Your task to perform on an android device: Open the stopwatch Image 0: 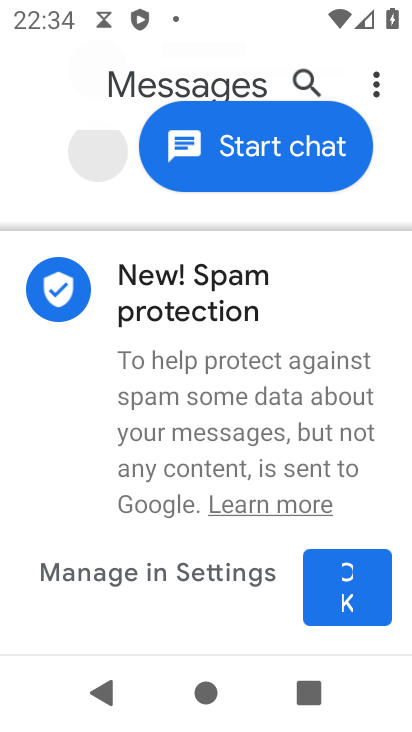
Step 0: press home button
Your task to perform on an android device: Open the stopwatch Image 1: 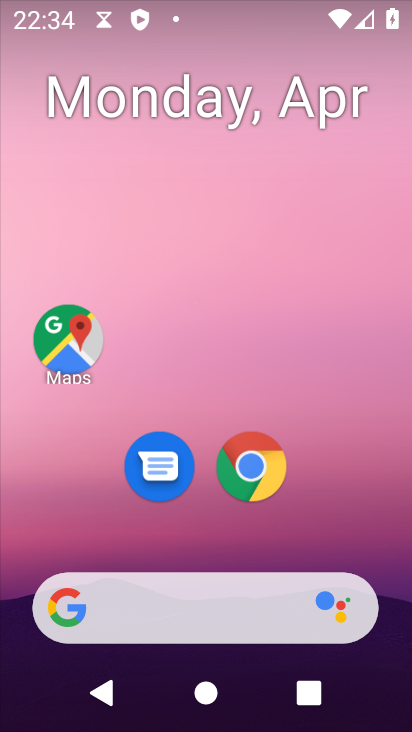
Step 1: drag from (228, 537) to (274, 48)
Your task to perform on an android device: Open the stopwatch Image 2: 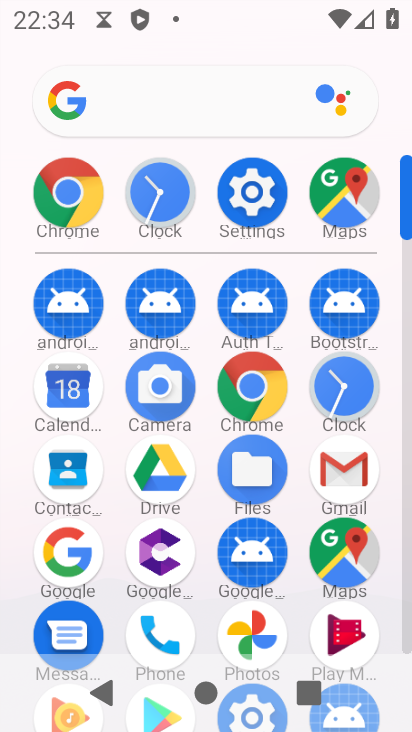
Step 2: click (353, 394)
Your task to perform on an android device: Open the stopwatch Image 3: 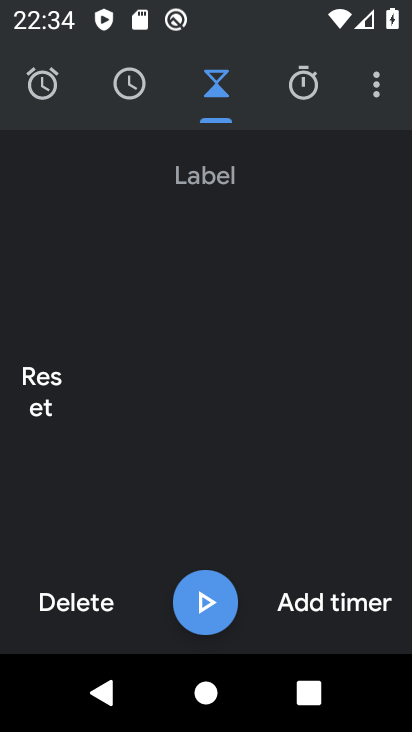
Step 3: click (310, 83)
Your task to perform on an android device: Open the stopwatch Image 4: 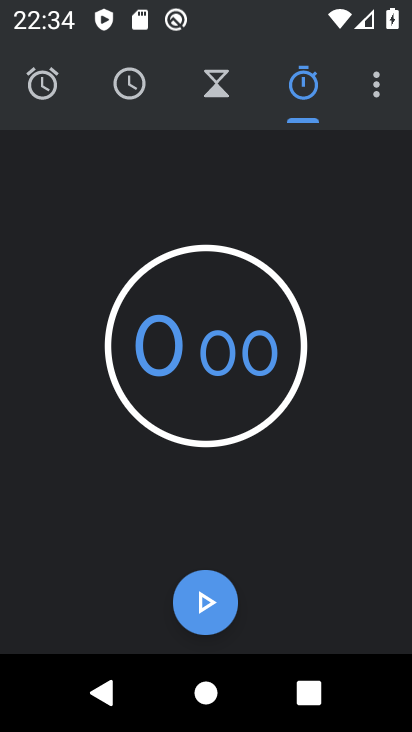
Step 4: task complete